Your task to perform on an android device: Turn on the flashlight Image 0: 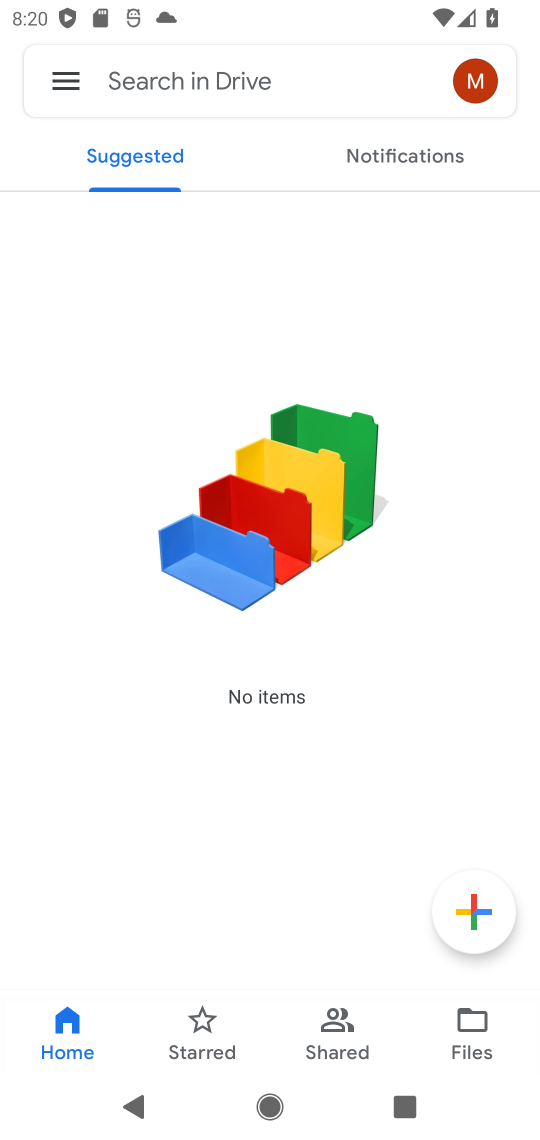
Step 0: press home button
Your task to perform on an android device: Turn on the flashlight Image 1: 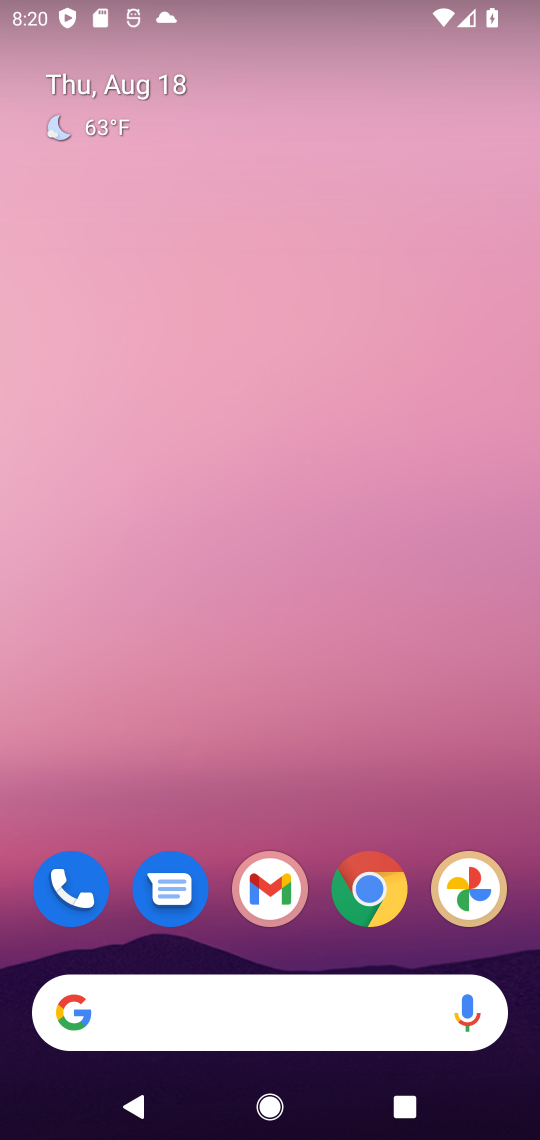
Step 1: drag from (287, 51) to (293, 876)
Your task to perform on an android device: Turn on the flashlight Image 2: 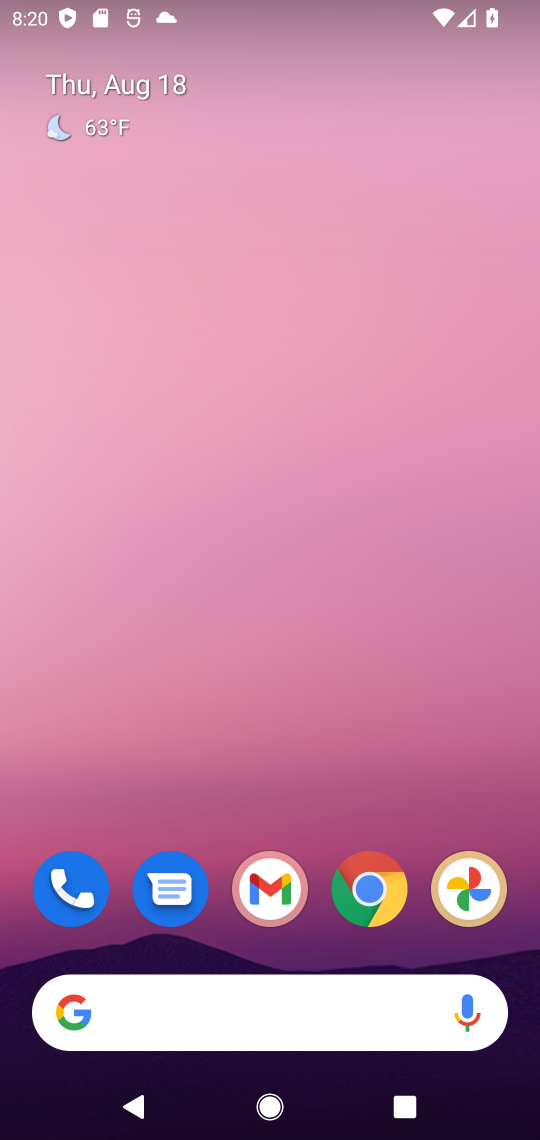
Step 2: drag from (237, 0) to (269, 814)
Your task to perform on an android device: Turn on the flashlight Image 3: 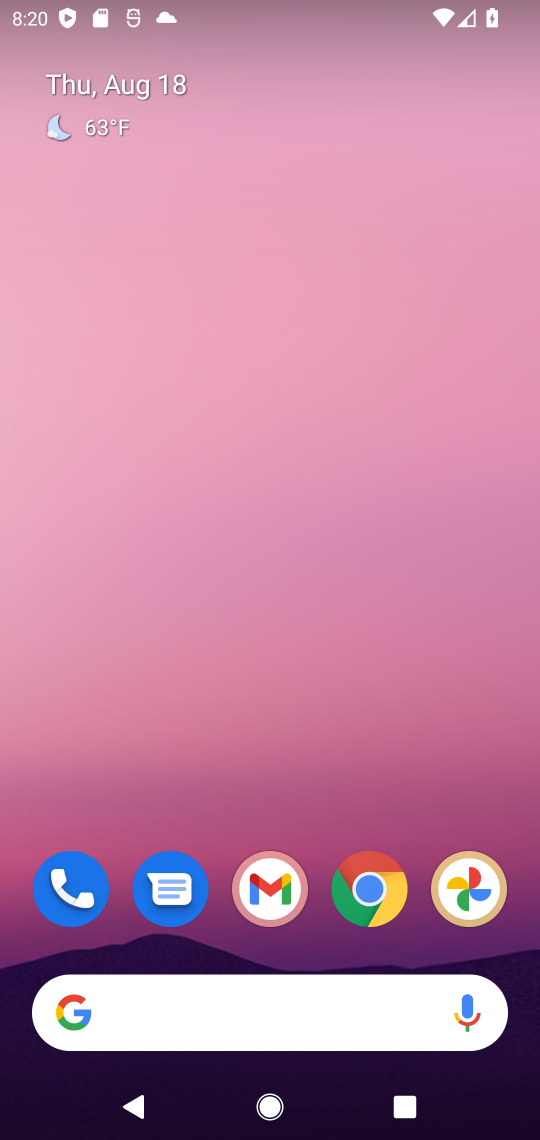
Step 3: drag from (279, 14) to (349, 708)
Your task to perform on an android device: Turn on the flashlight Image 4: 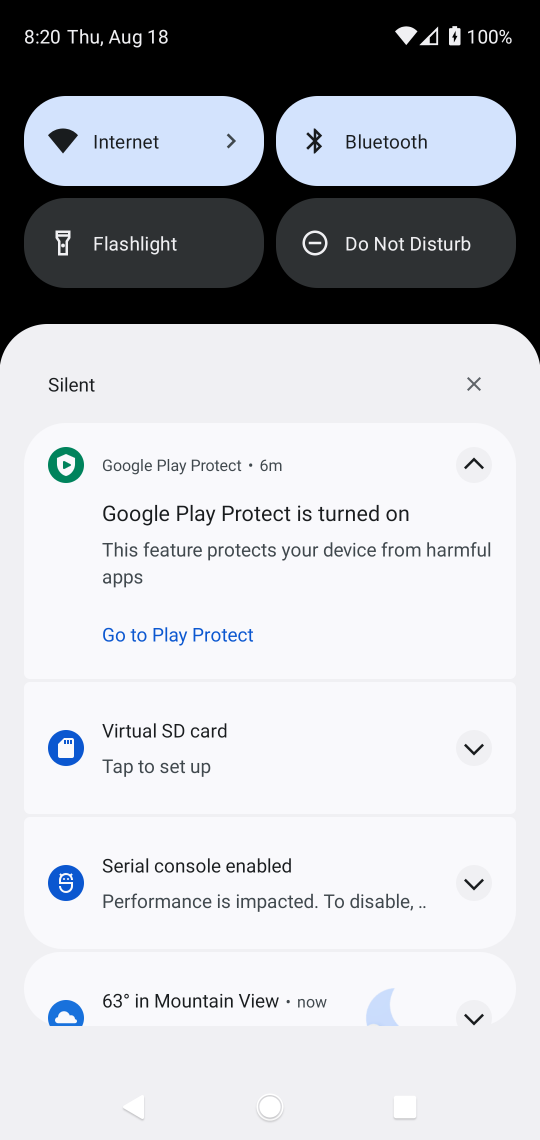
Step 4: click (131, 251)
Your task to perform on an android device: Turn on the flashlight Image 5: 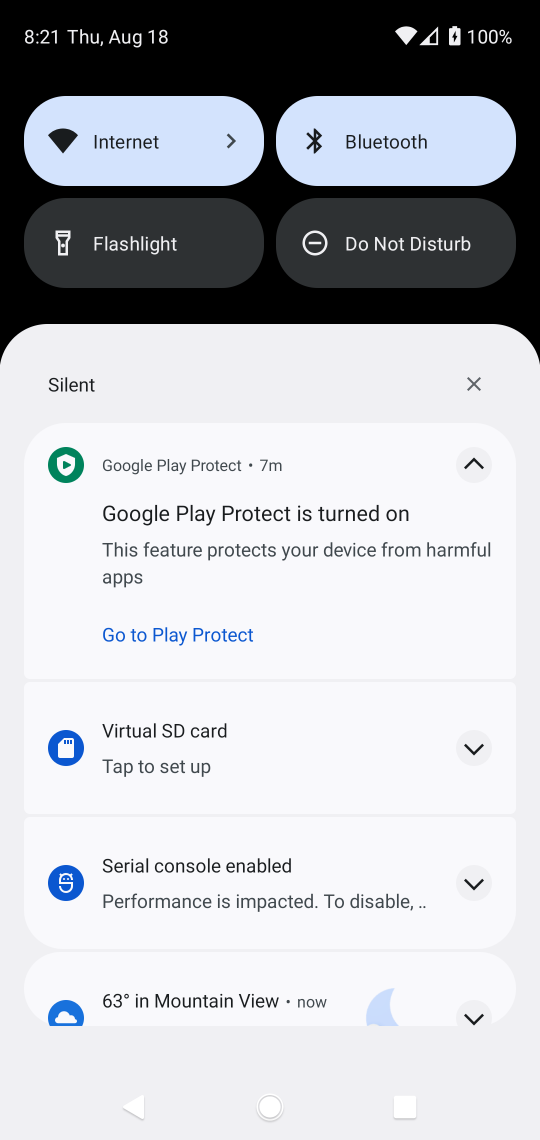
Step 5: task complete